Your task to perform on an android device: Set the phone to "Do not disturb". Image 0: 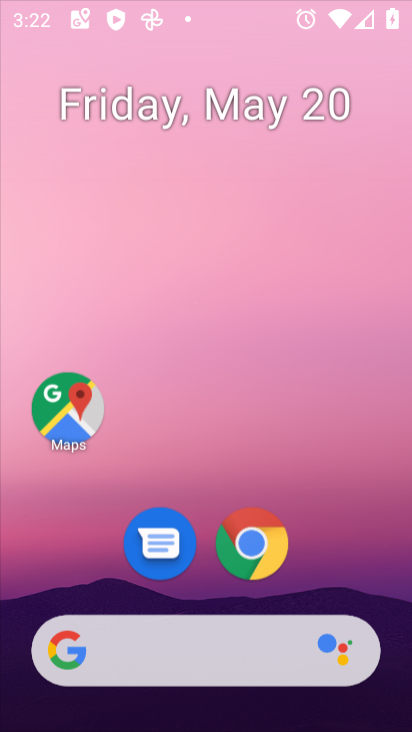
Step 0: click (320, 99)
Your task to perform on an android device: Set the phone to "Do not disturb". Image 1: 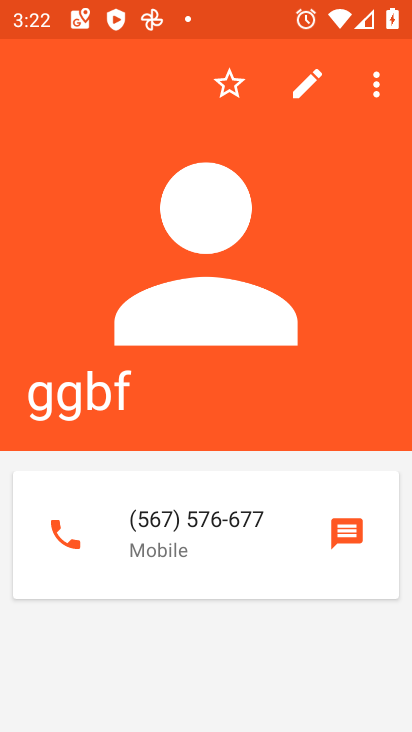
Step 1: press home button
Your task to perform on an android device: Set the phone to "Do not disturb". Image 2: 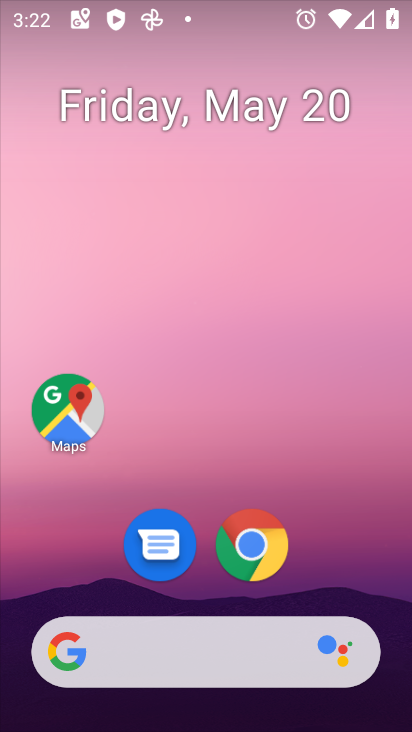
Step 2: drag from (347, 543) to (294, 10)
Your task to perform on an android device: Set the phone to "Do not disturb". Image 3: 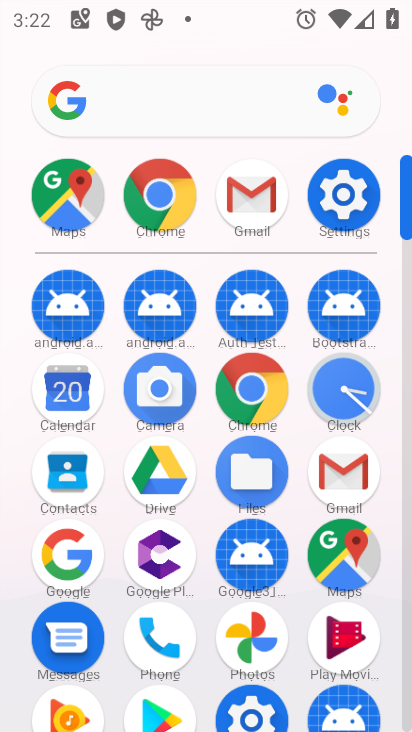
Step 3: click (344, 186)
Your task to perform on an android device: Set the phone to "Do not disturb". Image 4: 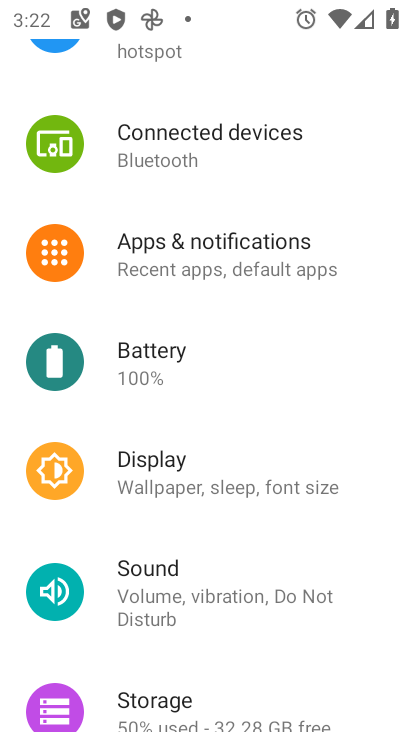
Step 4: click (227, 588)
Your task to perform on an android device: Set the phone to "Do not disturb". Image 5: 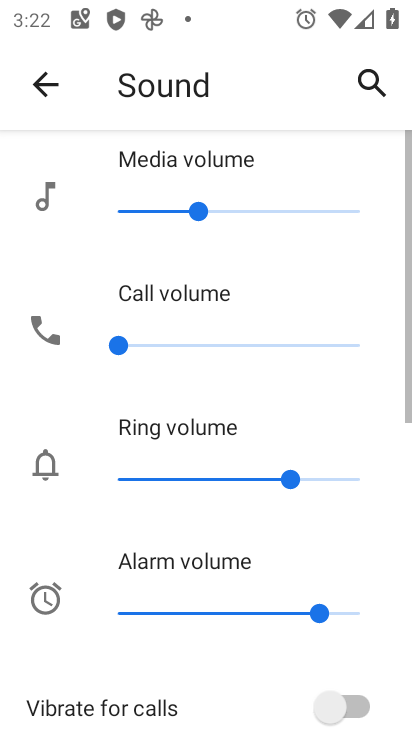
Step 5: drag from (328, 588) to (316, 171)
Your task to perform on an android device: Set the phone to "Do not disturb". Image 6: 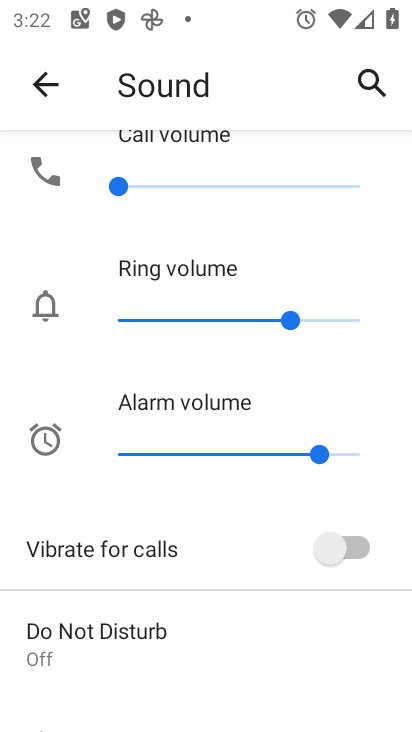
Step 6: click (99, 640)
Your task to perform on an android device: Set the phone to "Do not disturb". Image 7: 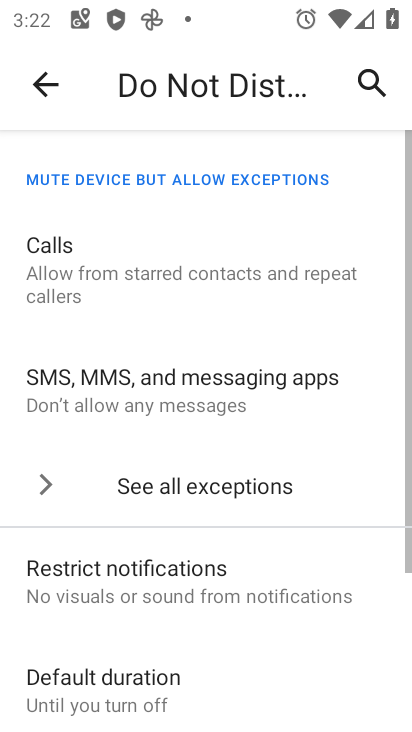
Step 7: drag from (190, 652) to (180, 44)
Your task to perform on an android device: Set the phone to "Do not disturb". Image 8: 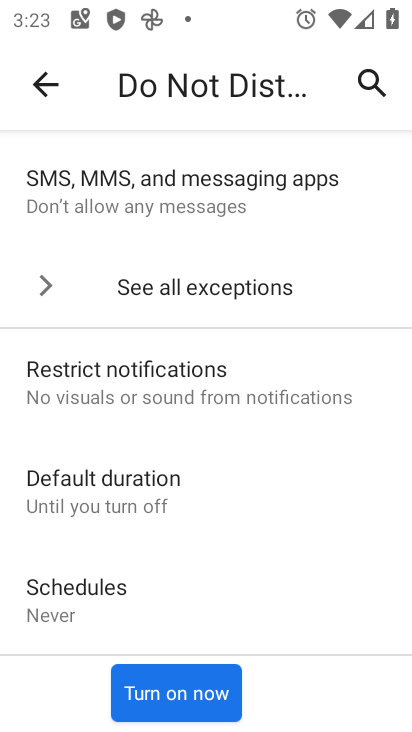
Step 8: click (182, 683)
Your task to perform on an android device: Set the phone to "Do not disturb". Image 9: 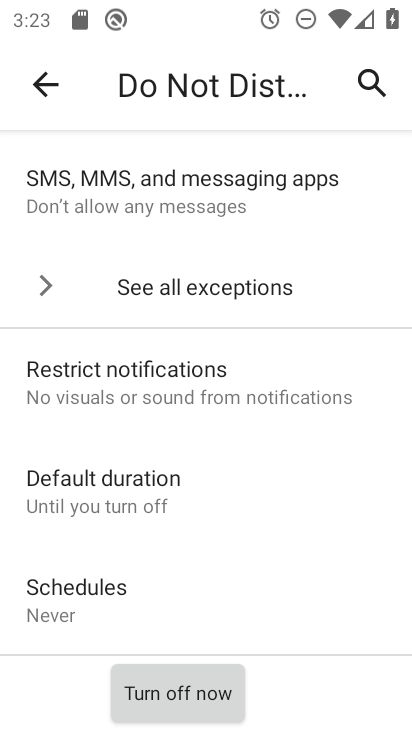
Step 9: task complete